Your task to perform on an android device: Open my contact list Image 0: 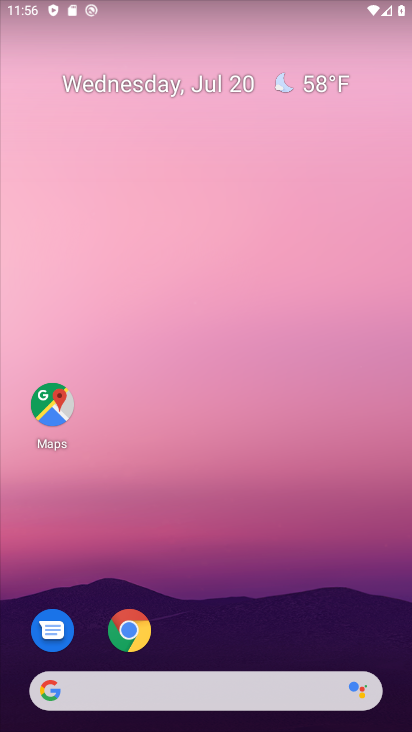
Step 0: drag from (230, 690) to (221, 139)
Your task to perform on an android device: Open my contact list Image 1: 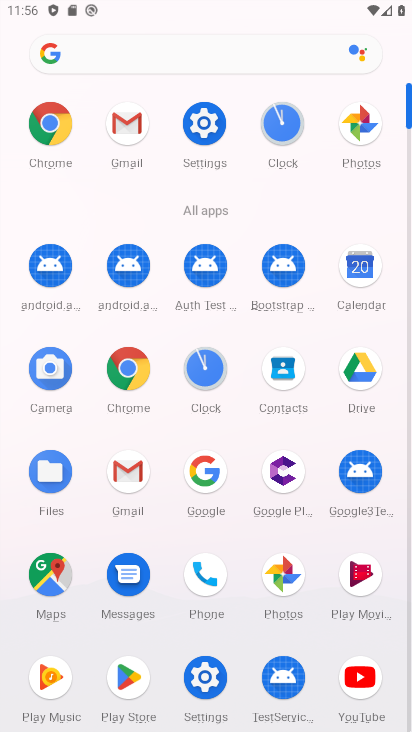
Step 1: click (277, 376)
Your task to perform on an android device: Open my contact list Image 2: 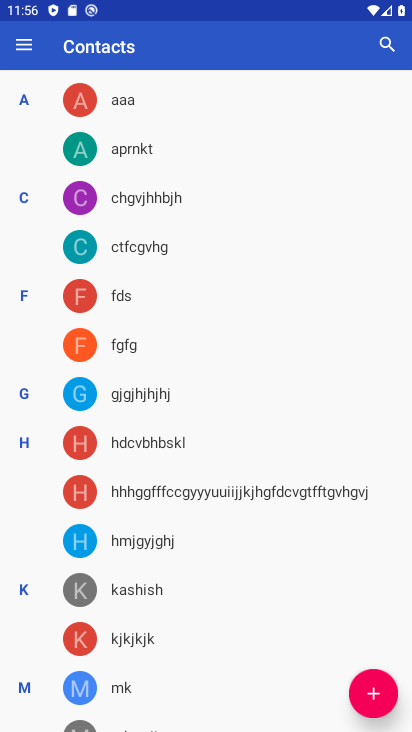
Step 2: task complete